Your task to perform on an android device: Go to ESPN.com Image 0: 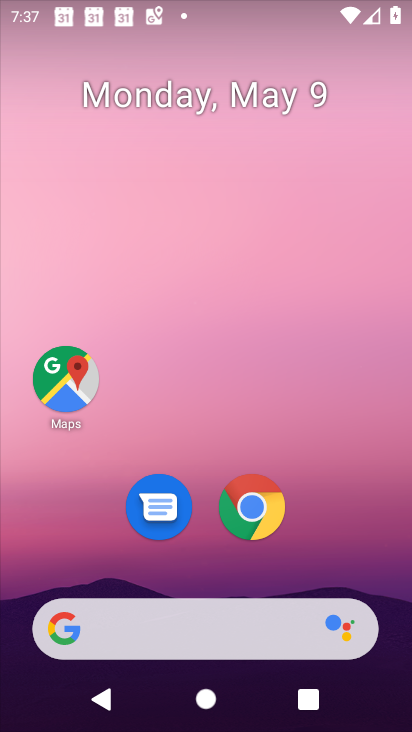
Step 0: drag from (248, 637) to (248, 201)
Your task to perform on an android device: Go to ESPN.com Image 1: 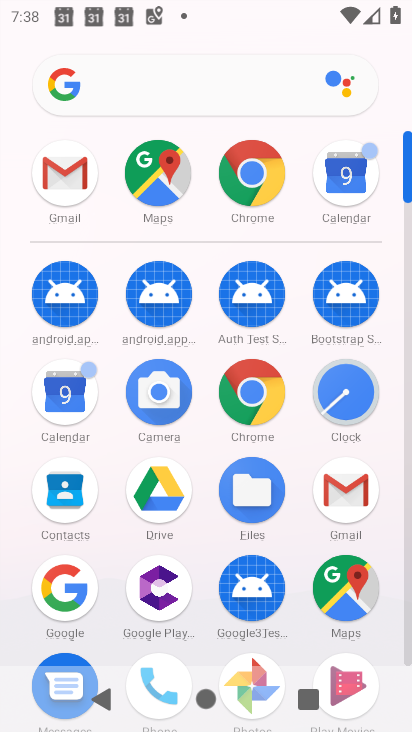
Step 1: click (244, 183)
Your task to perform on an android device: Go to ESPN.com Image 2: 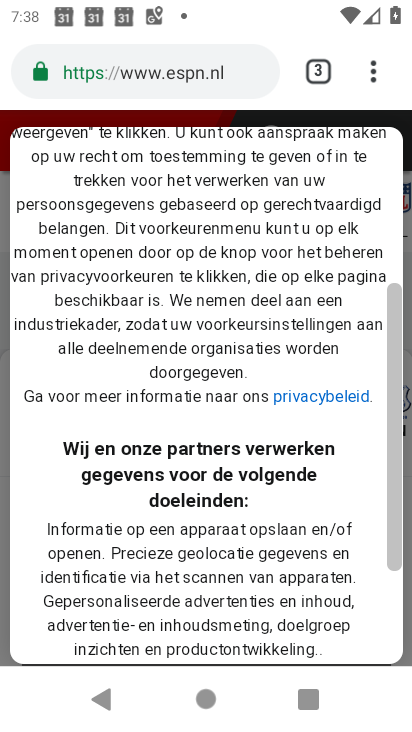
Step 2: drag from (394, 458) to (392, 627)
Your task to perform on an android device: Go to ESPN.com Image 3: 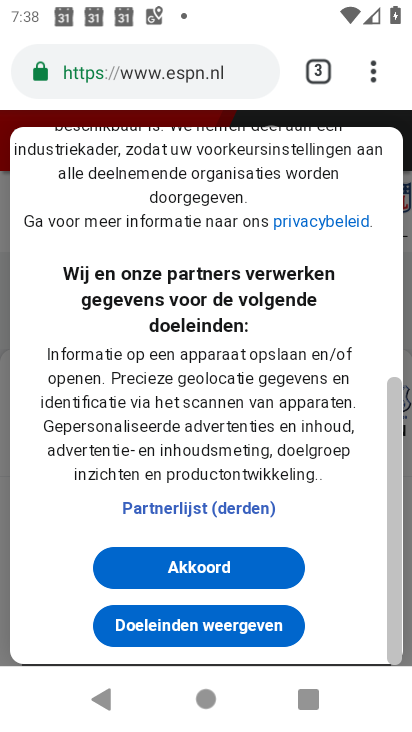
Step 3: click (217, 559)
Your task to perform on an android device: Go to ESPN.com Image 4: 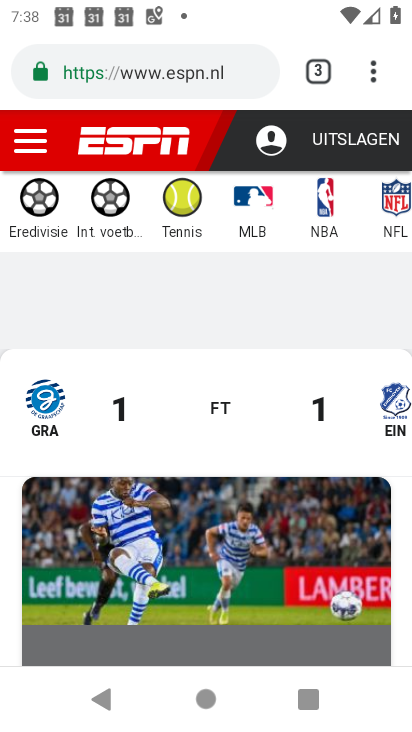
Step 4: click (200, 80)
Your task to perform on an android device: Go to ESPN.com Image 5: 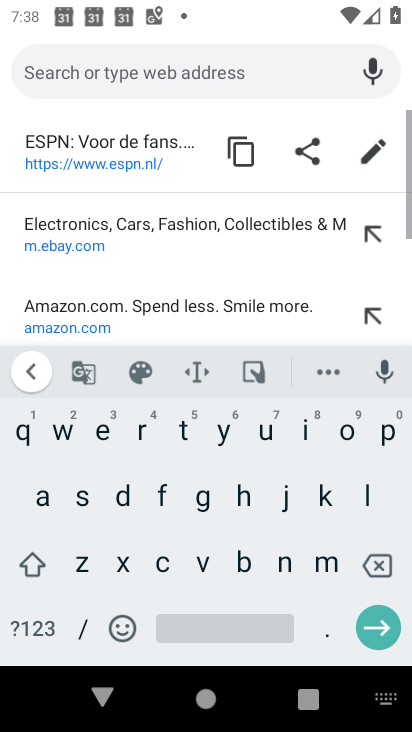
Step 5: click (115, 161)
Your task to perform on an android device: Go to ESPN.com Image 6: 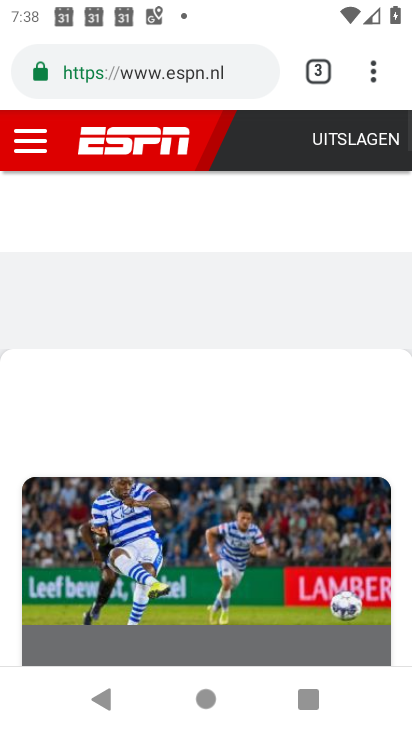
Step 6: task complete